Your task to perform on an android device: toggle sleep mode Image 0: 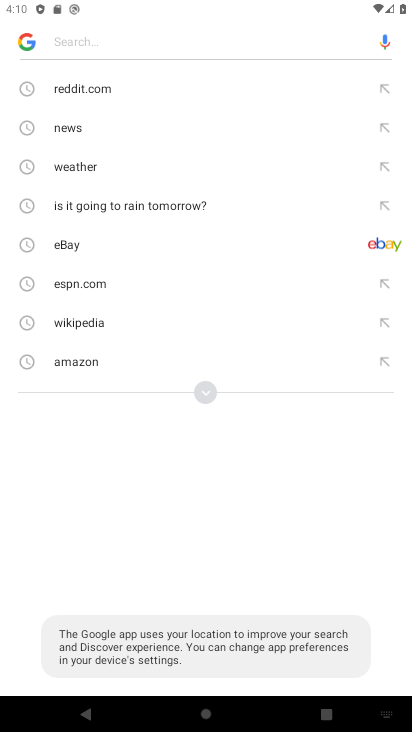
Step 0: press back button
Your task to perform on an android device: toggle sleep mode Image 1: 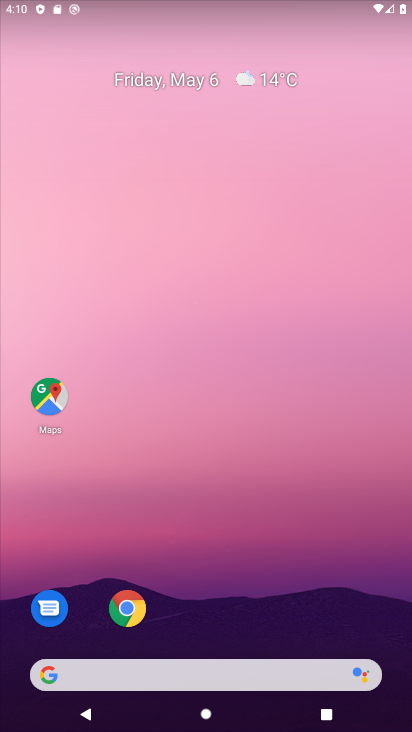
Step 1: drag from (224, 658) to (321, 189)
Your task to perform on an android device: toggle sleep mode Image 2: 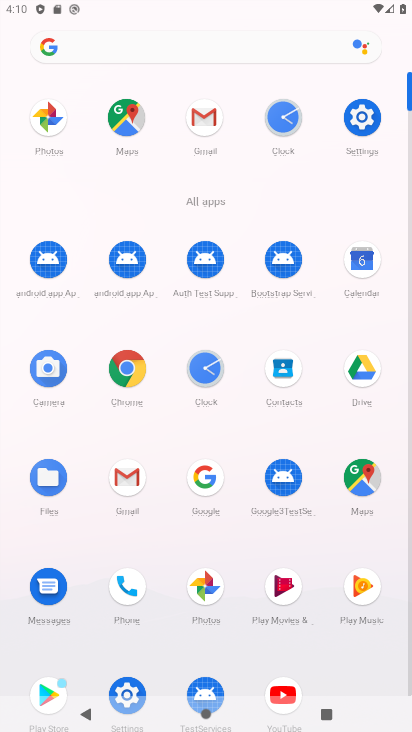
Step 2: drag from (149, 668) to (271, 213)
Your task to perform on an android device: toggle sleep mode Image 3: 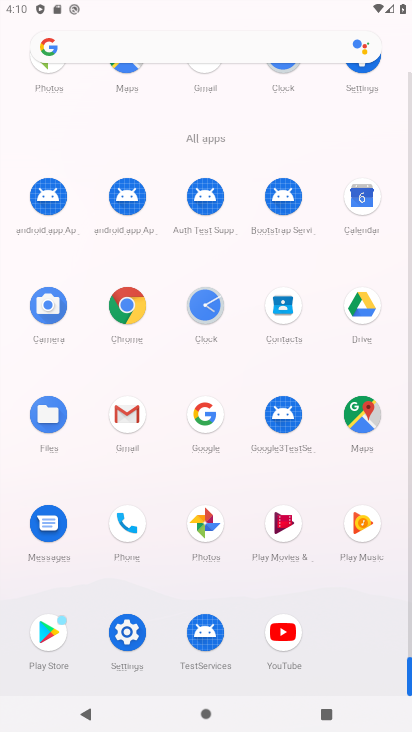
Step 3: click (132, 637)
Your task to perform on an android device: toggle sleep mode Image 4: 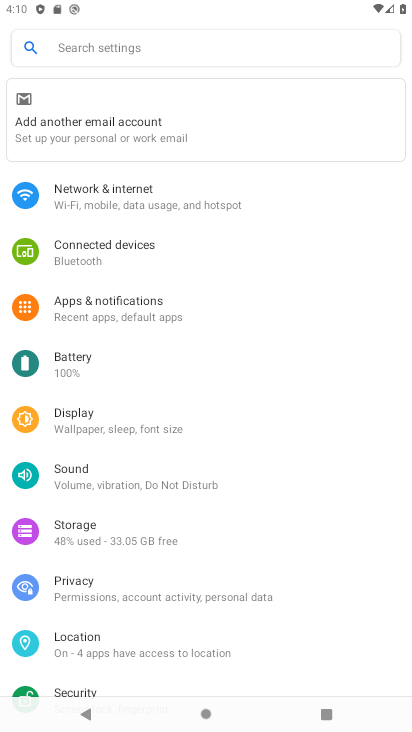
Step 4: drag from (165, 600) to (224, 312)
Your task to perform on an android device: toggle sleep mode Image 5: 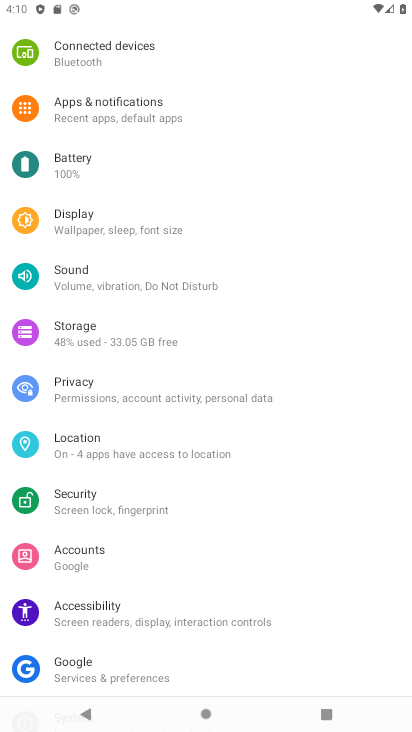
Step 5: click (136, 223)
Your task to perform on an android device: toggle sleep mode Image 6: 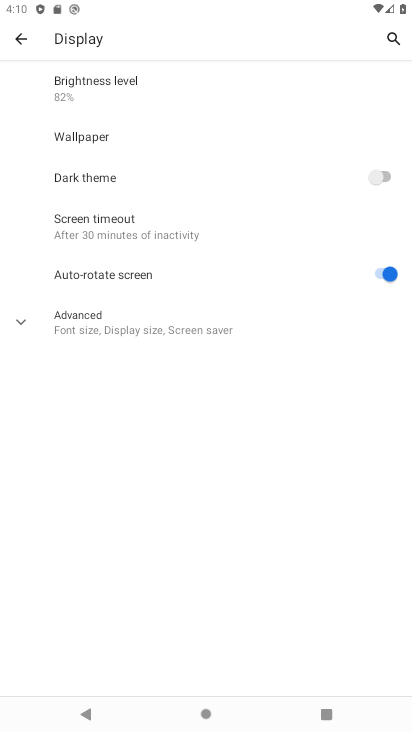
Step 6: task complete